Your task to perform on an android device: refresh tabs in the chrome app Image 0: 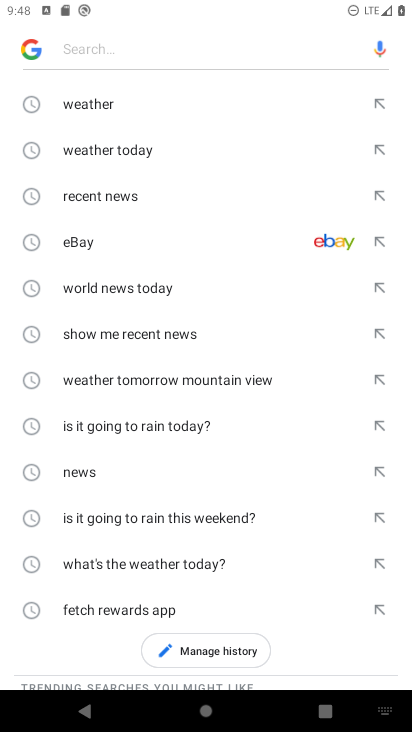
Step 0: press home button
Your task to perform on an android device: refresh tabs in the chrome app Image 1: 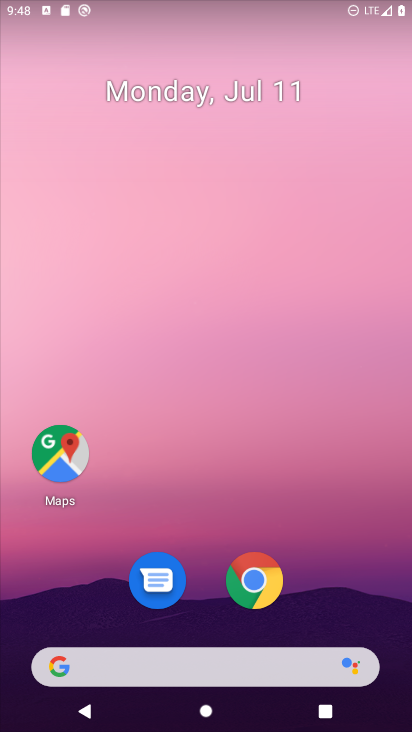
Step 1: click (266, 575)
Your task to perform on an android device: refresh tabs in the chrome app Image 2: 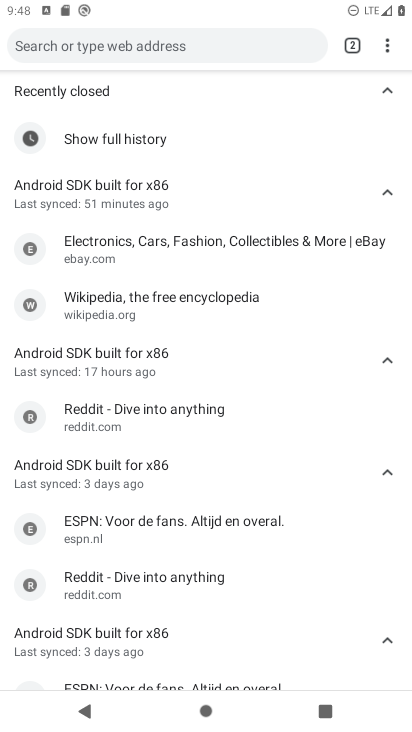
Step 2: click (381, 46)
Your task to perform on an android device: refresh tabs in the chrome app Image 3: 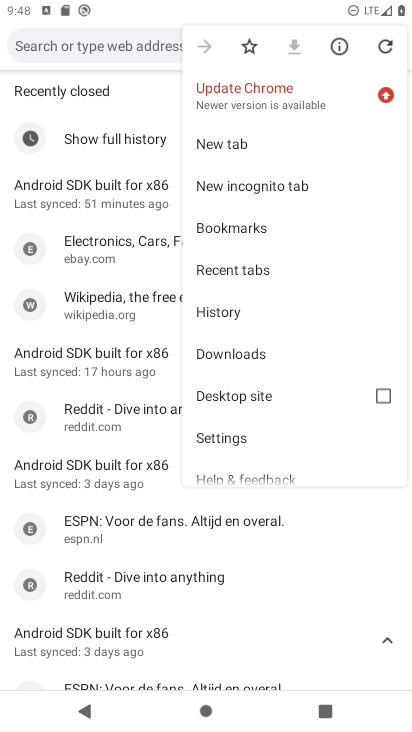
Step 3: click (387, 44)
Your task to perform on an android device: refresh tabs in the chrome app Image 4: 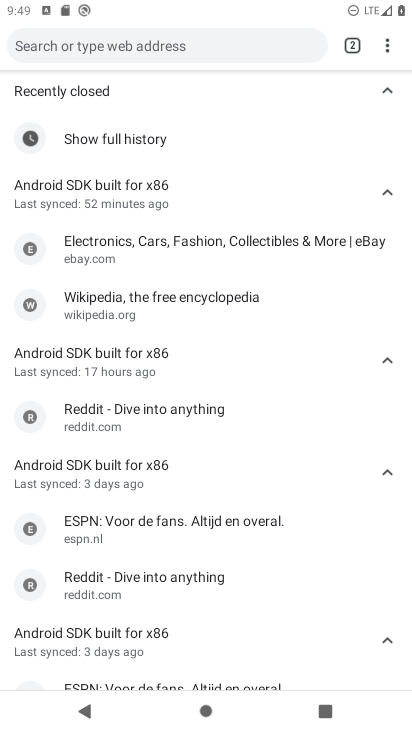
Step 4: task complete